Your task to perform on an android device: turn on notifications settings in the gmail app Image 0: 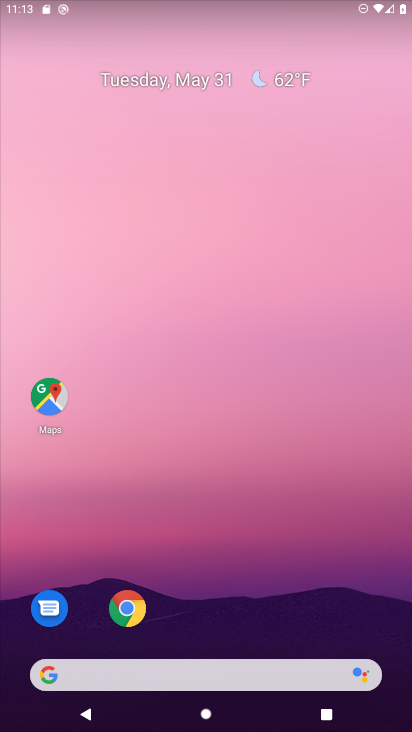
Step 0: drag from (366, 582) to (332, 109)
Your task to perform on an android device: turn on notifications settings in the gmail app Image 1: 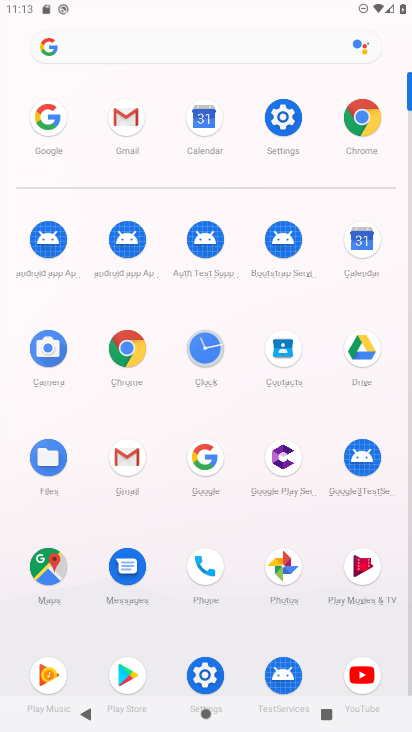
Step 1: click (128, 474)
Your task to perform on an android device: turn on notifications settings in the gmail app Image 2: 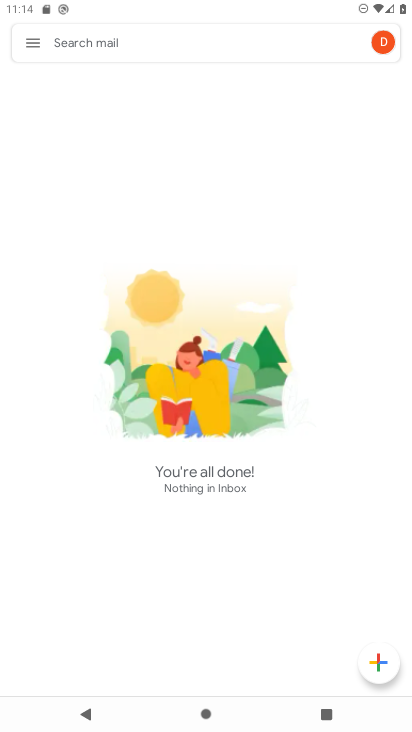
Step 2: click (48, 41)
Your task to perform on an android device: turn on notifications settings in the gmail app Image 3: 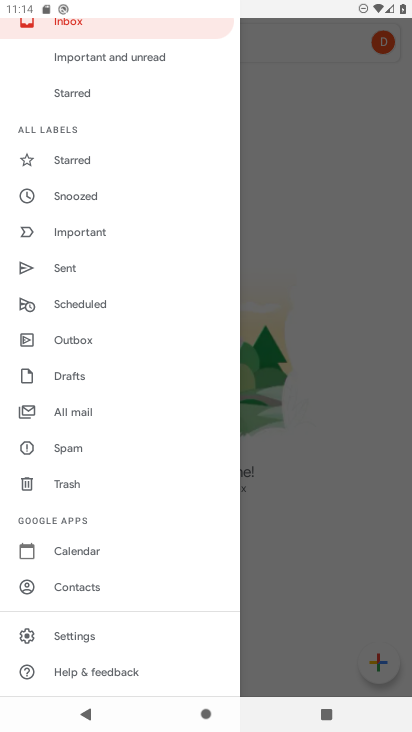
Step 3: click (106, 636)
Your task to perform on an android device: turn on notifications settings in the gmail app Image 4: 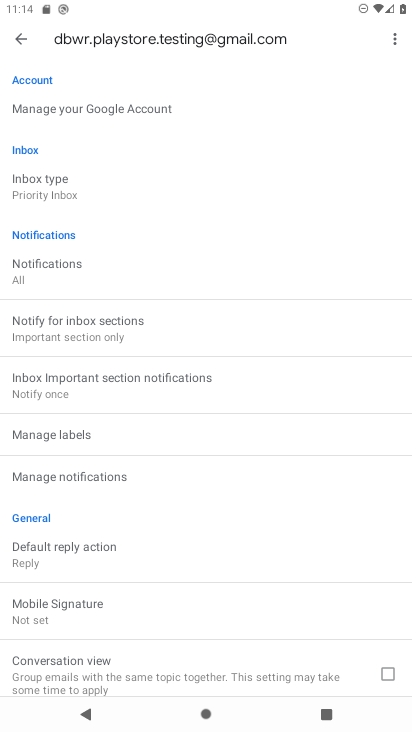
Step 4: click (78, 263)
Your task to perform on an android device: turn on notifications settings in the gmail app Image 5: 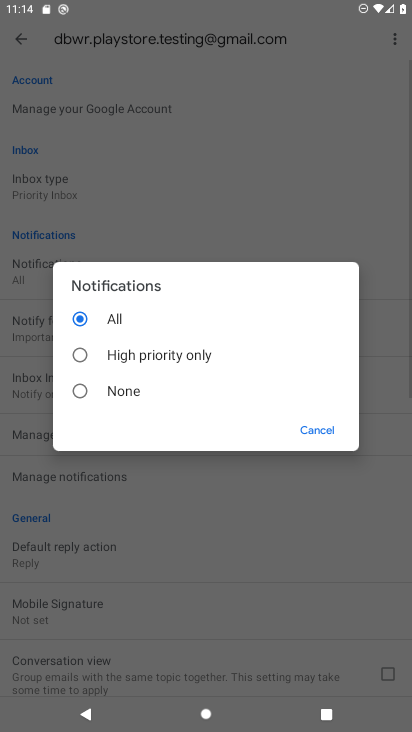
Step 5: task complete